Your task to perform on an android device: Search for seafood restaurants on Google Maps Image 0: 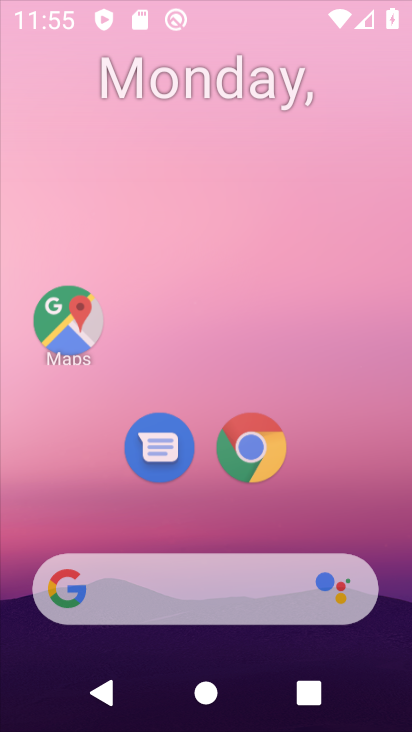
Step 0: drag from (243, 580) to (224, 193)
Your task to perform on an android device: Search for seafood restaurants on Google Maps Image 1: 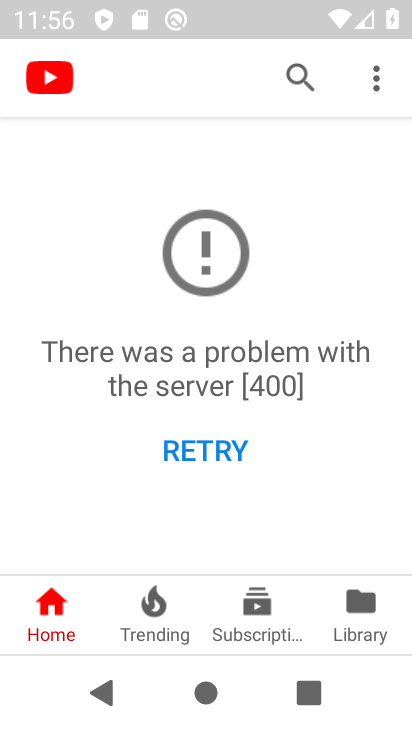
Step 1: press home button
Your task to perform on an android device: Search for seafood restaurants on Google Maps Image 2: 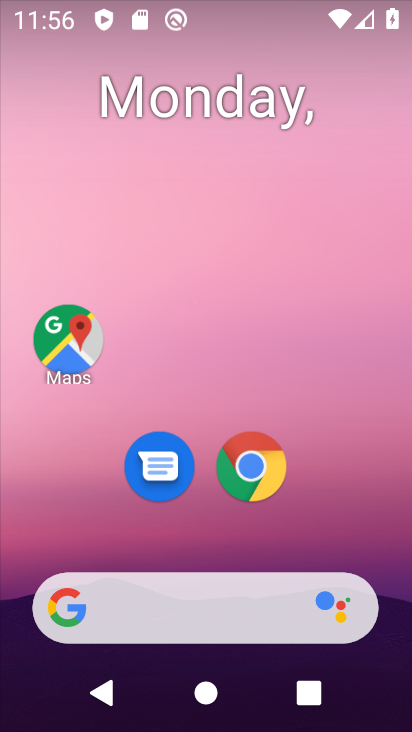
Step 2: drag from (203, 538) to (201, 161)
Your task to perform on an android device: Search for seafood restaurants on Google Maps Image 3: 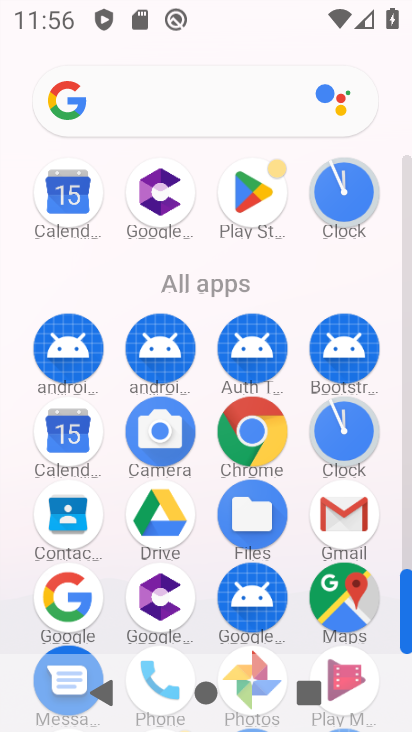
Step 3: click (325, 605)
Your task to perform on an android device: Search for seafood restaurants on Google Maps Image 4: 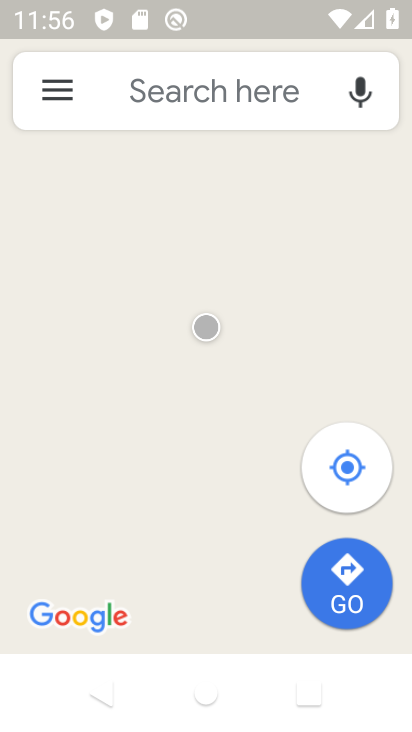
Step 4: click (179, 72)
Your task to perform on an android device: Search for seafood restaurants on Google Maps Image 5: 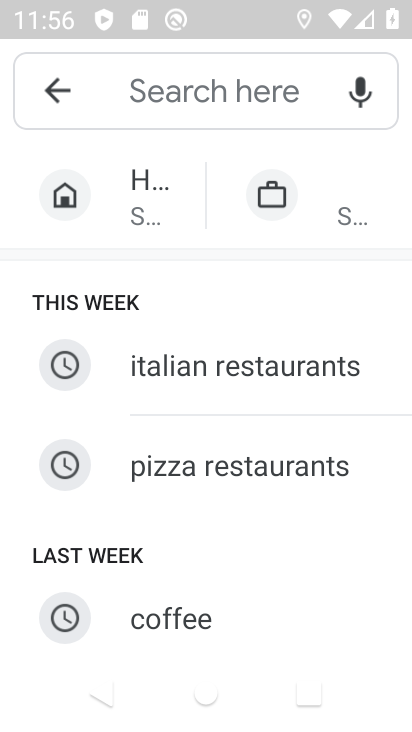
Step 5: click (172, 96)
Your task to perform on an android device: Search for seafood restaurants on Google Maps Image 6: 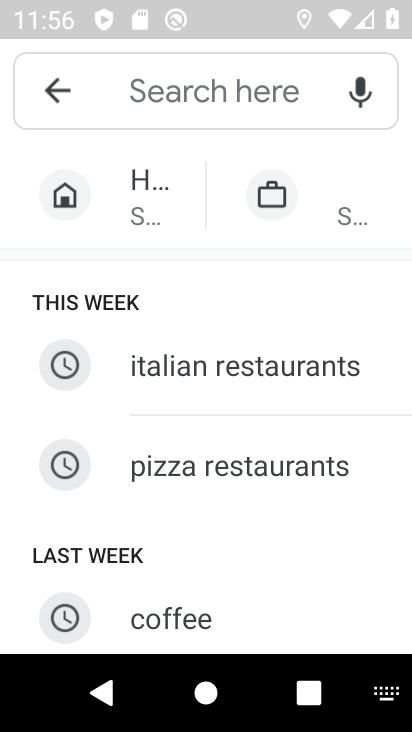
Step 6: drag from (171, 559) to (211, 256)
Your task to perform on an android device: Search for seafood restaurants on Google Maps Image 7: 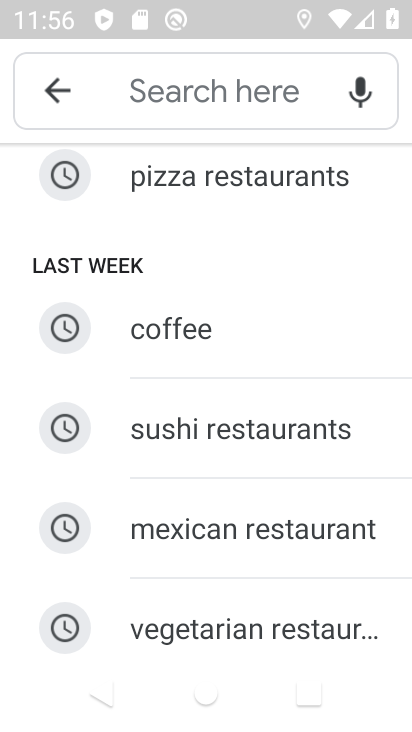
Step 7: drag from (219, 608) to (234, 367)
Your task to perform on an android device: Search for seafood restaurants on Google Maps Image 8: 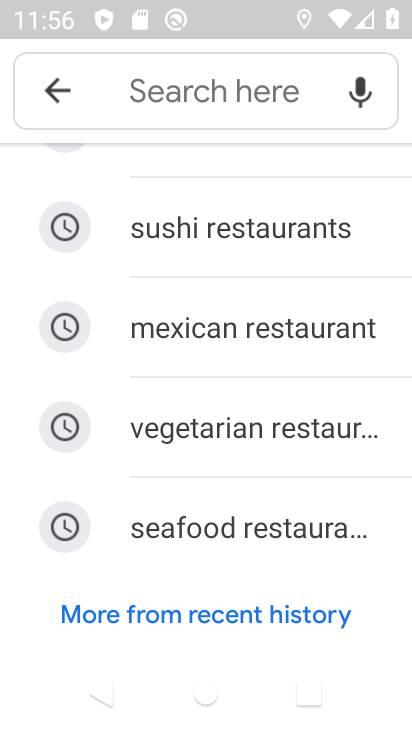
Step 8: click (212, 519)
Your task to perform on an android device: Search for seafood restaurants on Google Maps Image 9: 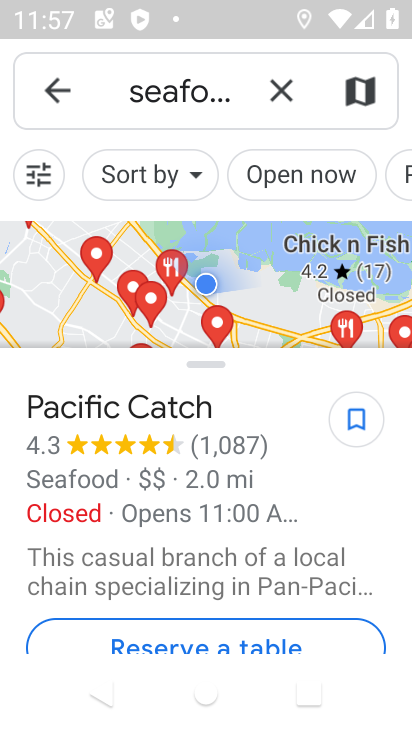
Step 9: task complete